Your task to perform on an android device: Open notification settings Image 0: 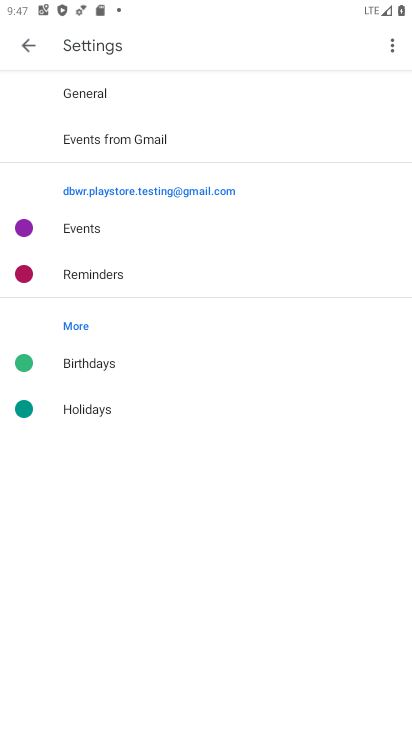
Step 0: press back button
Your task to perform on an android device: Open notification settings Image 1: 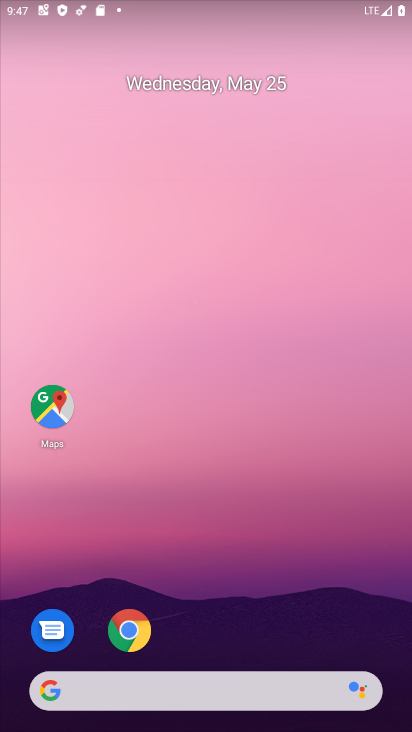
Step 1: drag from (230, 652) to (276, 150)
Your task to perform on an android device: Open notification settings Image 2: 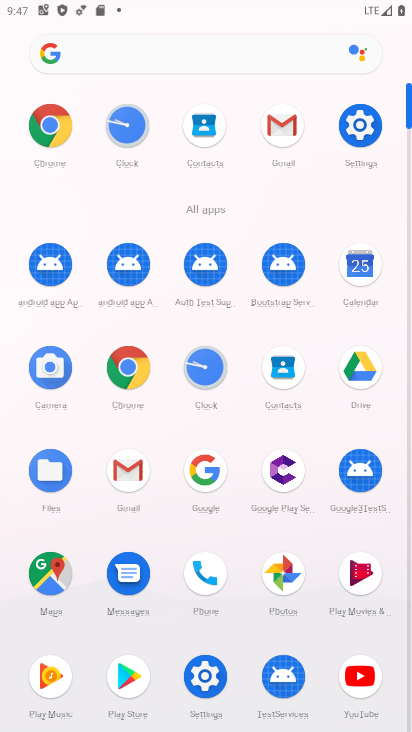
Step 2: click (373, 96)
Your task to perform on an android device: Open notification settings Image 3: 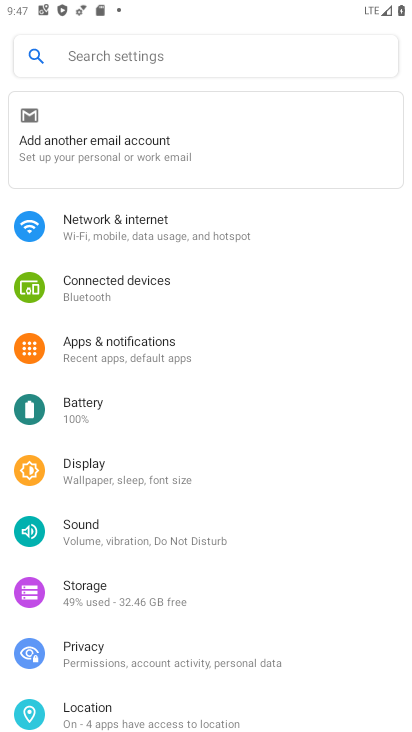
Step 3: click (156, 355)
Your task to perform on an android device: Open notification settings Image 4: 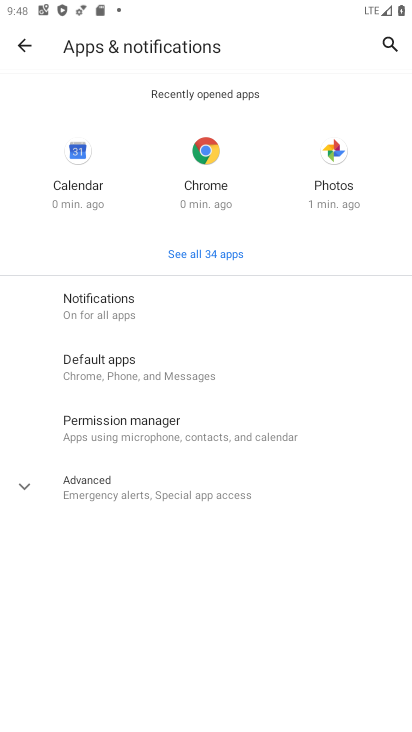
Step 4: click (178, 297)
Your task to perform on an android device: Open notification settings Image 5: 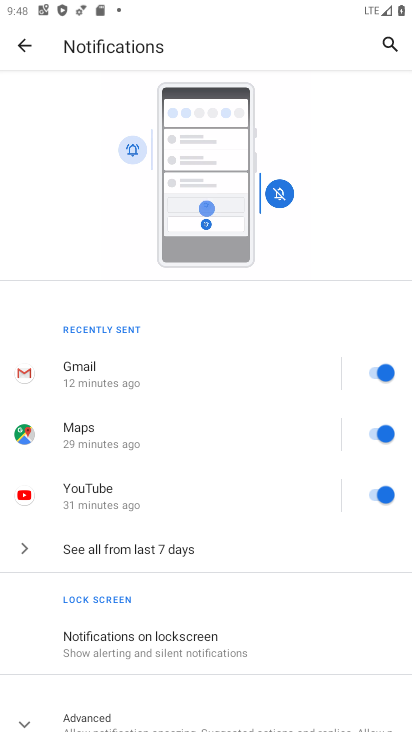
Step 5: task complete